Your task to perform on an android device: set the stopwatch Image 0: 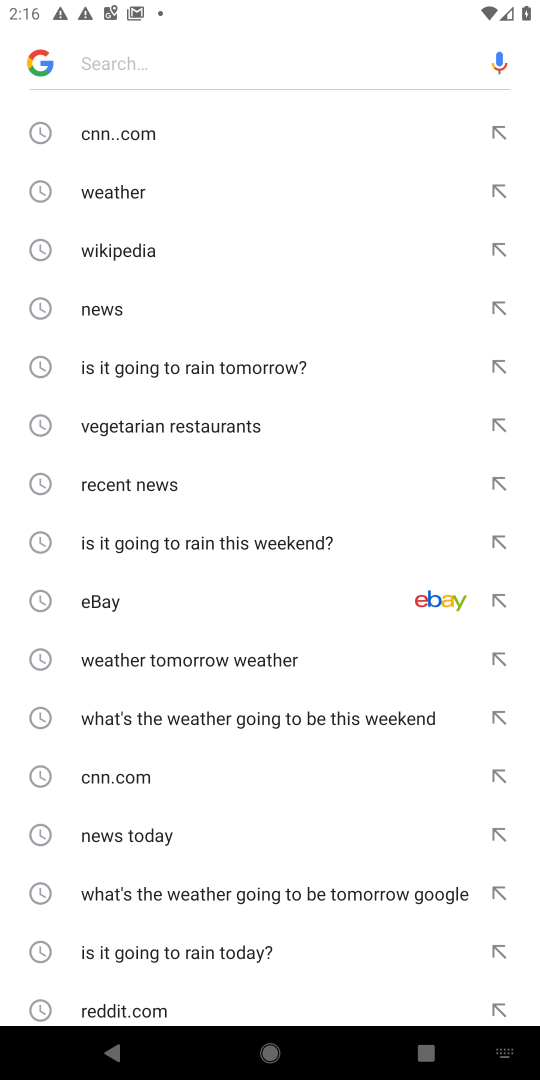
Step 0: press home button
Your task to perform on an android device: set the stopwatch Image 1: 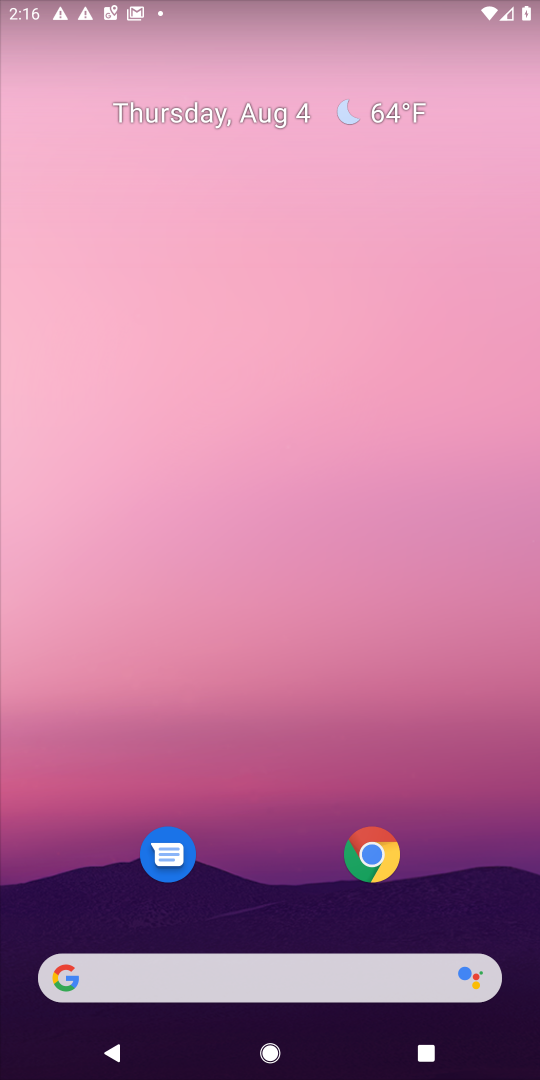
Step 1: drag from (306, 951) to (243, 298)
Your task to perform on an android device: set the stopwatch Image 2: 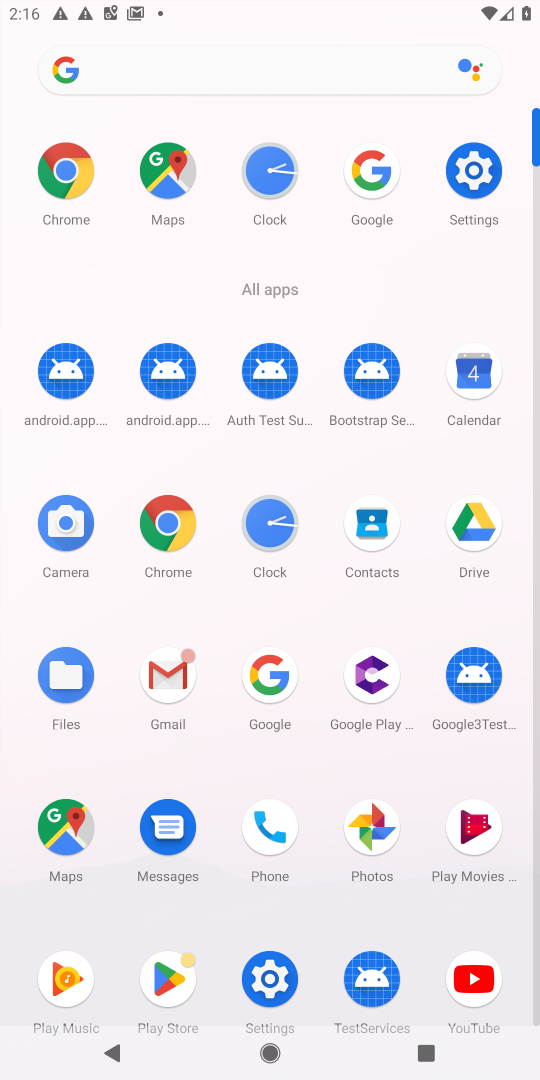
Step 2: click (268, 176)
Your task to perform on an android device: set the stopwatch Image 3: 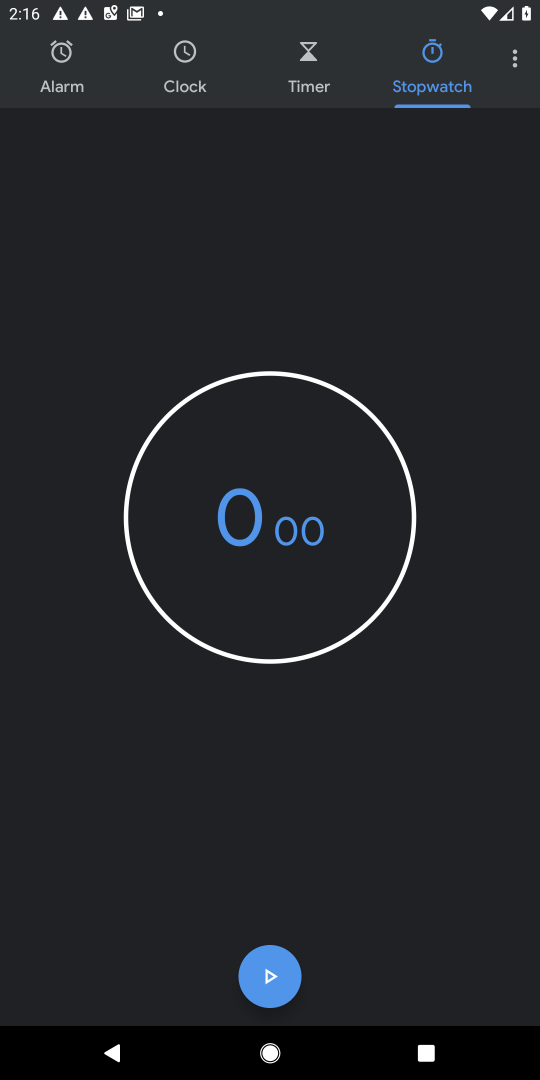
Step 3: task complete